Your task to perform on an android device: Find coffee shops on Maps Image 0: 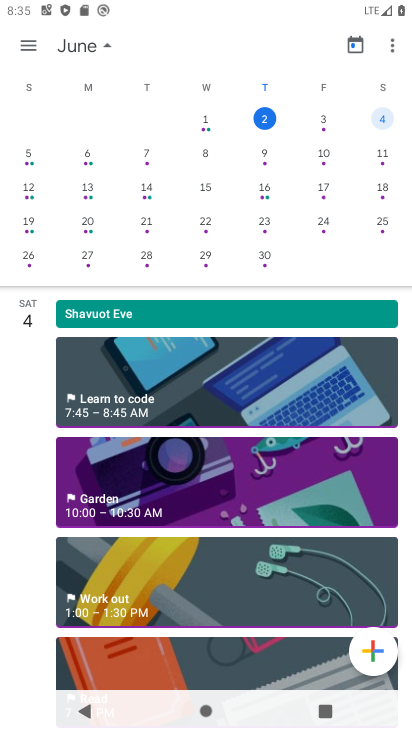
Step 0: press home button
Your task to perform on an android device: Find coffee shops on Maps Image 1: 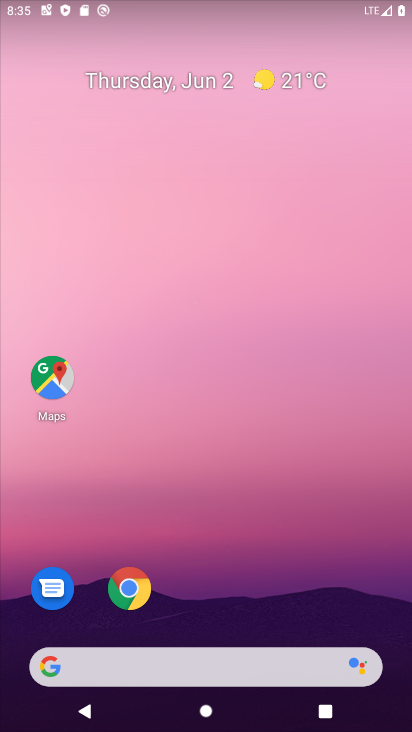
Step 1: drag from (265, 639) to (324, 22)
Your task to perform on an android device: Find coffee shops on Maps Image 2: 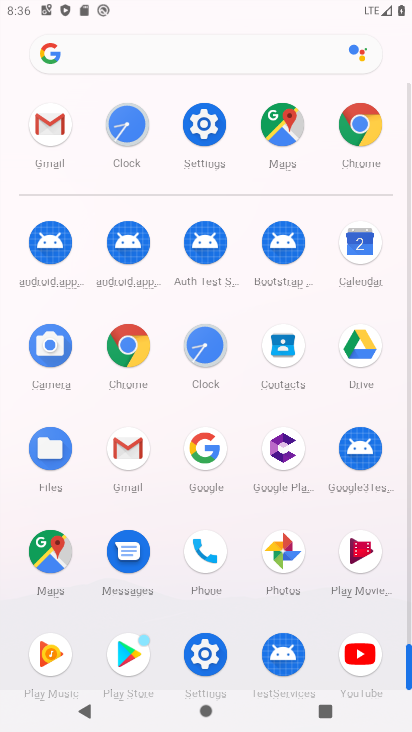
Step 2: click (54, 567)
Your task to perform on an android device: Find coffee shops on Maps Image 3: 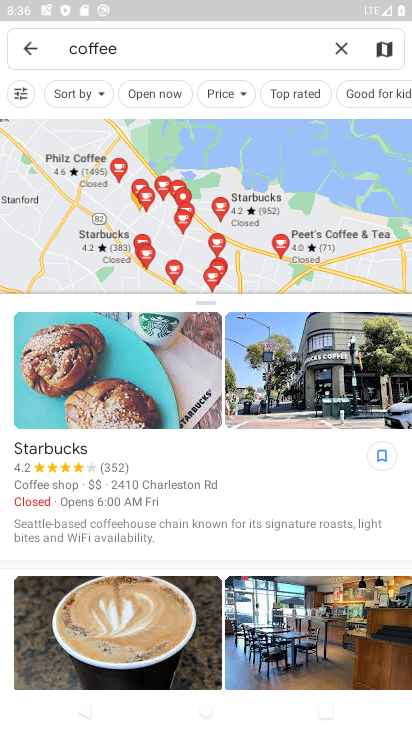
Step 3: task complete